Your task to perform on an android device: change timer sound Image 0: 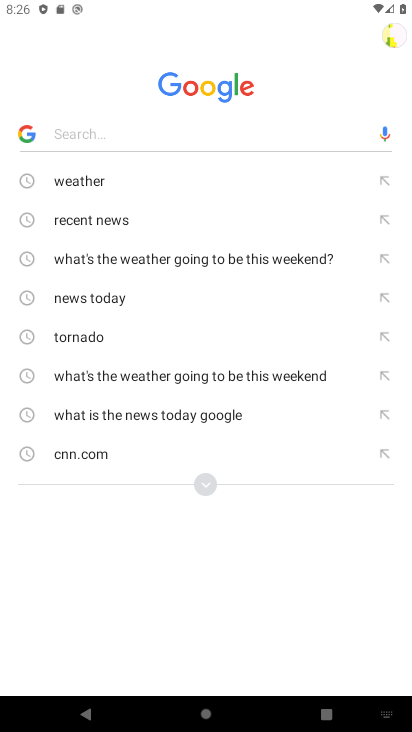
Step 0: press home button
Your task to perform on an android device: change timer sound Image 1: 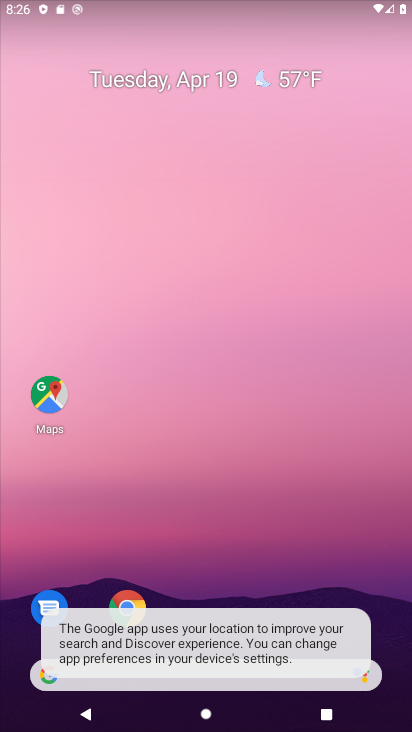
Step 1: drag from (249, 531) to (260, 115)
Your task to perform on an android device: change timer sound Image 2: 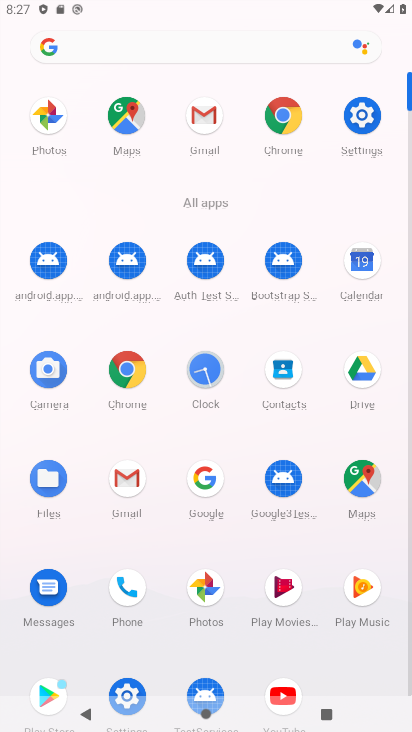
Step 2: click (206, 375)
Your task to perform on an android device: change timer sound Image 3: 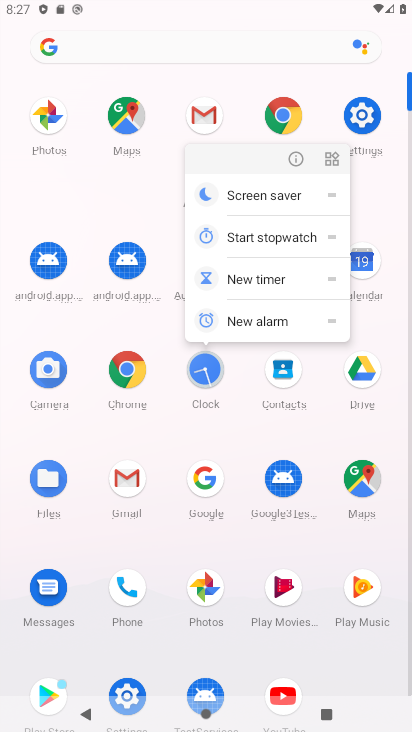
Step 3: click (206, 375)
Your task to perform on an android device: change timer sound Image 4: 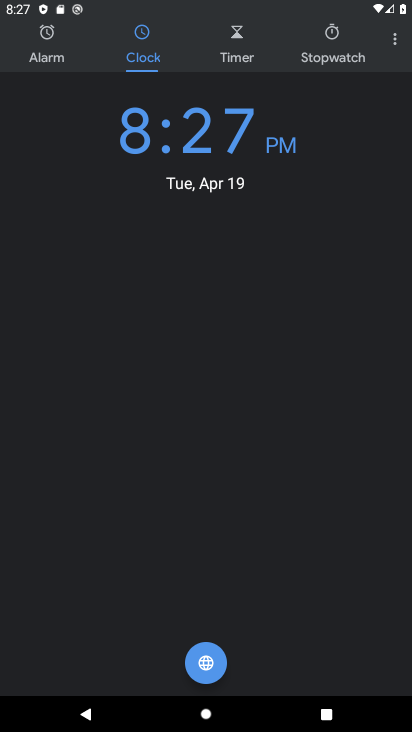
Step 4: click (388, 24)
Your task to perform on an android device: change timer sound Image 5: 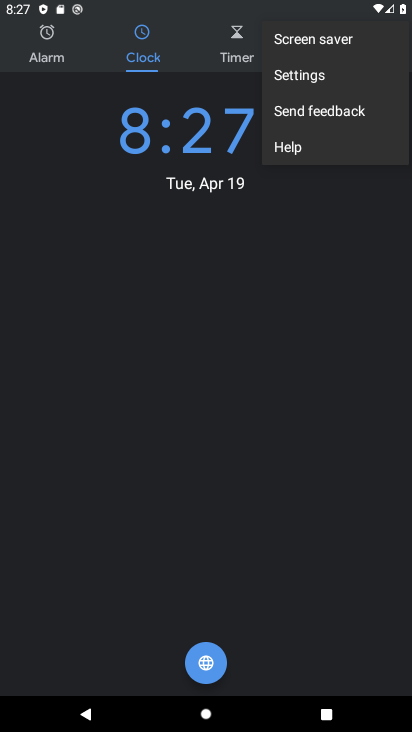
Step 5: click (335, 76)
Your task to perform on an android device: change timer sound Image 6: 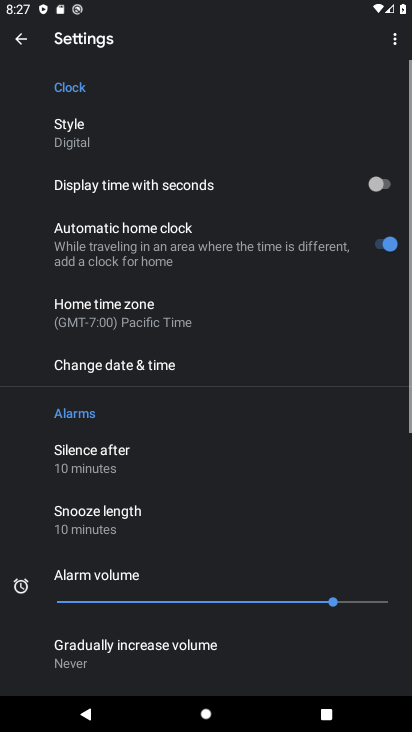
Step 6: drag from (253, 527) to (259, 60)
Your task to perform on an android device: change timer sound Image 7: 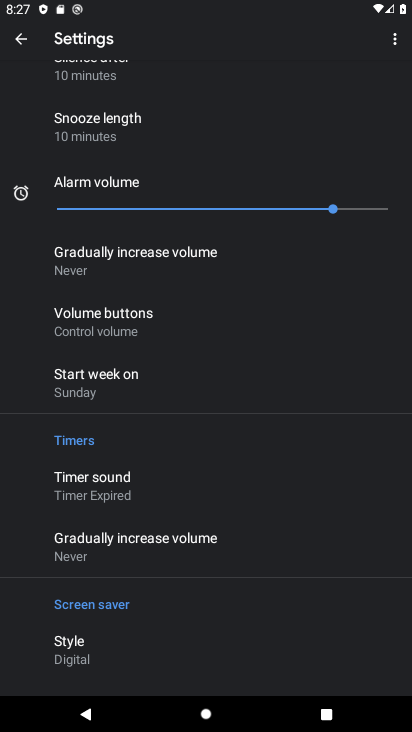
Step 7: click (122, 489)
Your task to perform on an android device: change timer sound Image 8: 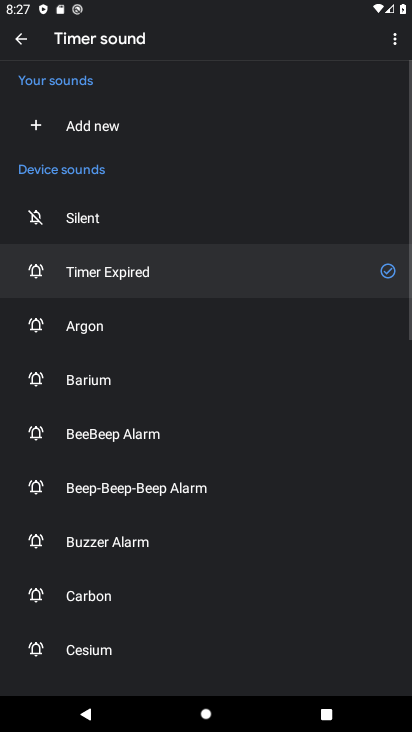
Step 8: click (102, 325)
Your task to perform on an android device: change timer sound Image 9: 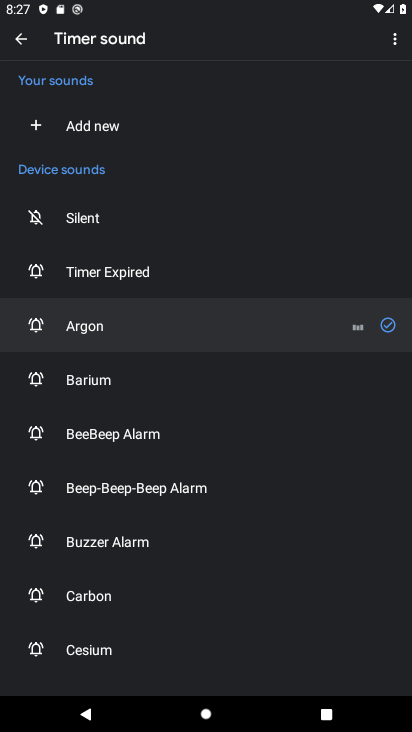
Step 9: task complete